Your task to perform on an android device: turn on notifications settings in the gmail app Image 0: 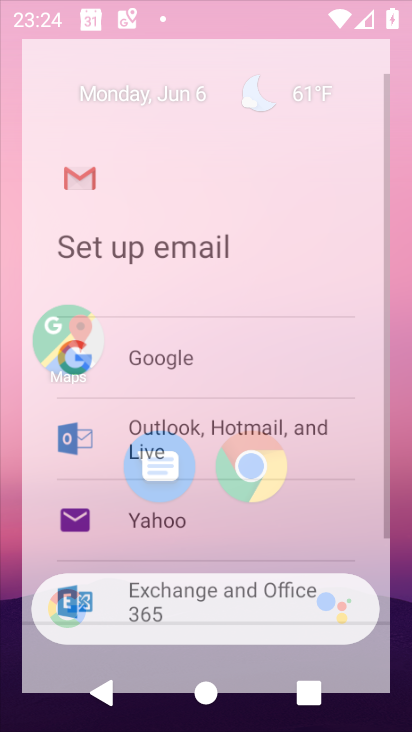
Step 0: press home button
Your task to perform on an android device: turn on notifications settings in the gmail app Image 1: 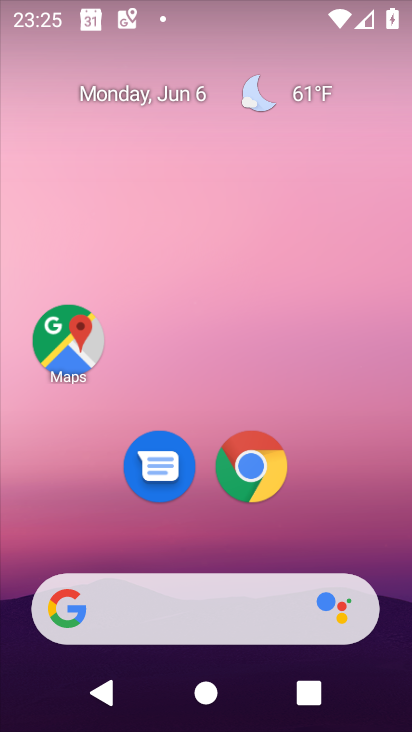
Step 1: drag from (285, 523) to (361, 44)
Your task to perform on an android device: turn on notifications settings in the gmail app Image 2: 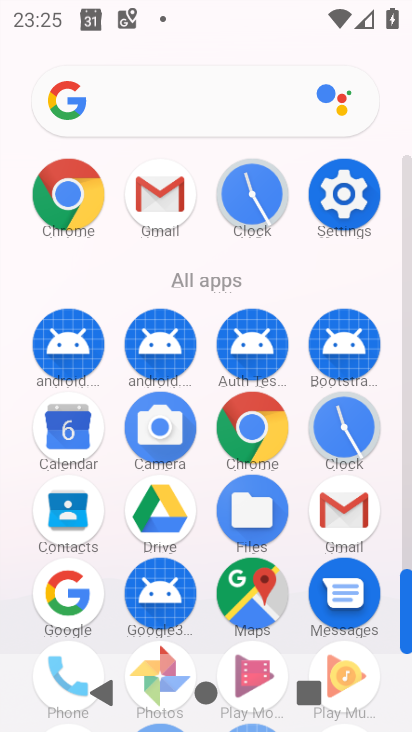
Step 2: click (363, 505)
Your task to perform on an android device: turn on notifications settings in the gmail app Image 3: 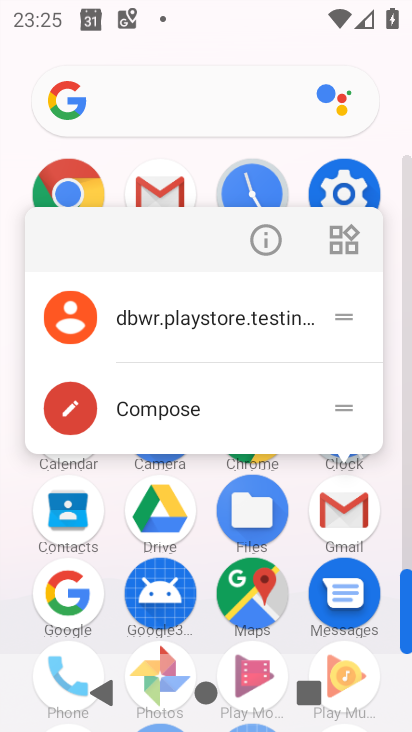
Step 3: click (262, 236)
Your task to perform on an android device: turn on notifications settings in the gmail app Image 4: 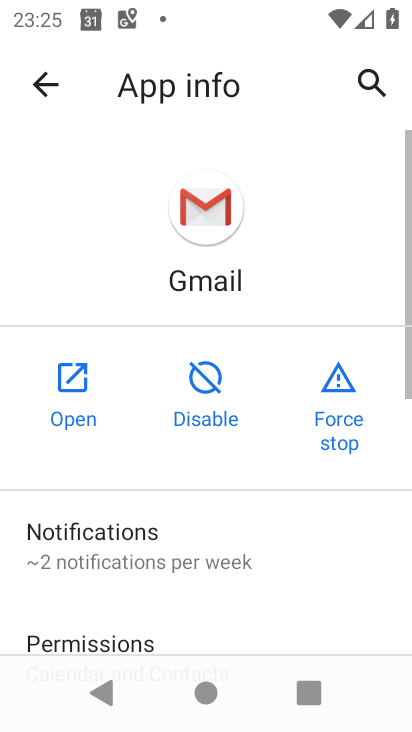
Step 4: drag from (213, 615) to (201, 335)
Your task to perform on an android device: turn on notifications settings in the gmail app Image 5: 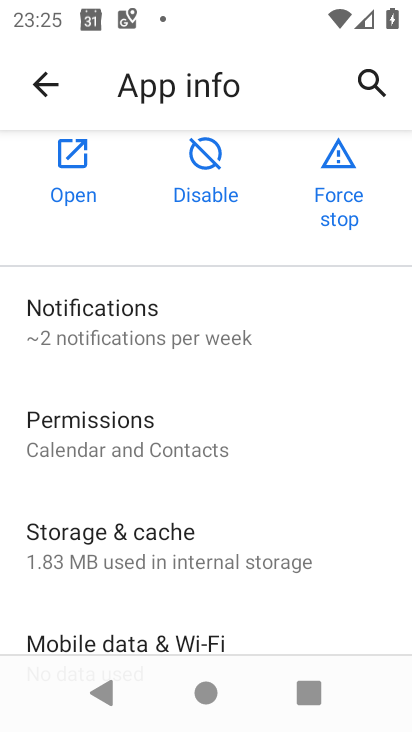
Step 5: click (201, 335)
Your task to perform on an android device: turn on notifications settings in the gmail app Image 6: 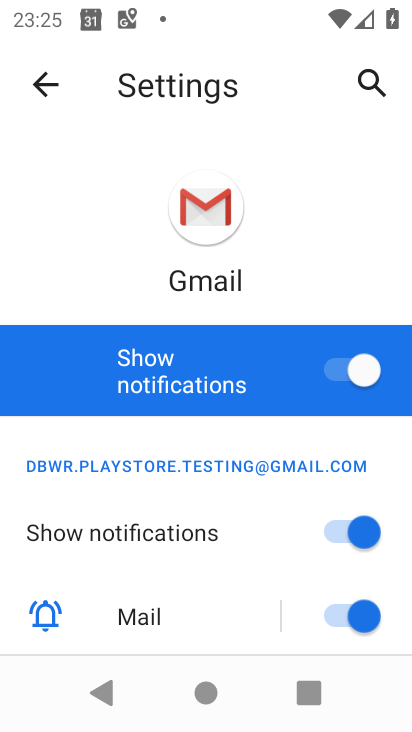
Step 6: task complete